Your task to perform on an android device: set the timer Image 0: 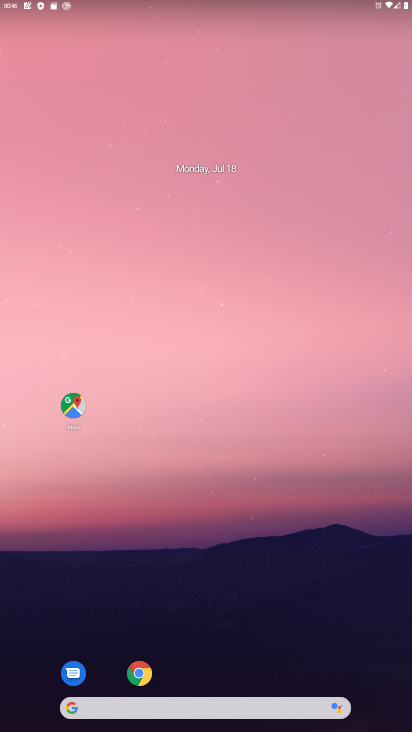
Step 0: drag from (246, 663) to (230, 51)
Your task to perform on an android device: set the timer Image 1: 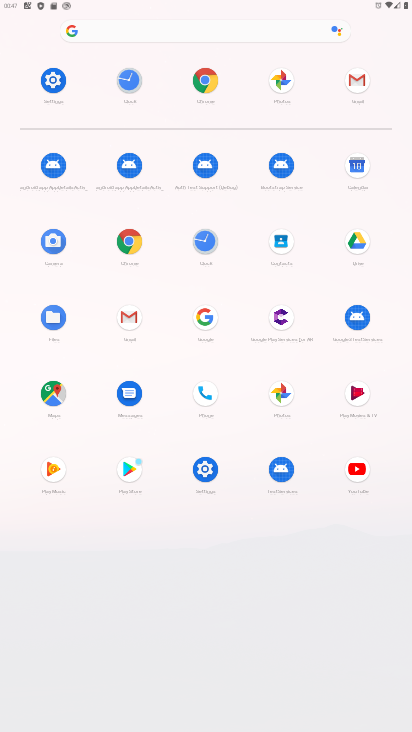
Step 1: click (44, 85)
Your task to perform on an android device: set the timer Image 2: 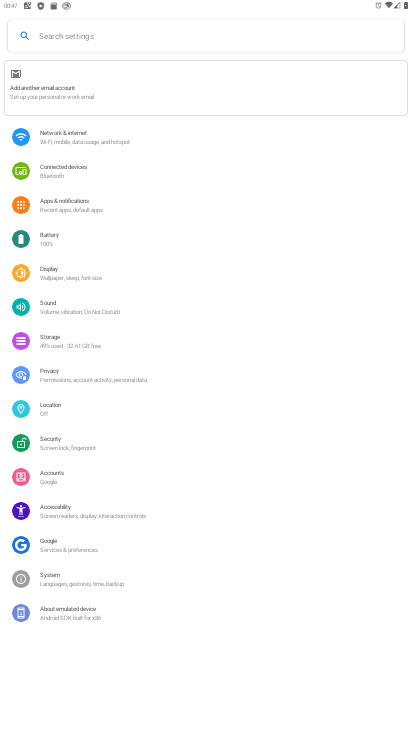
Step 2: press home button
Your task to perform on an android device: set the timer Image 3: 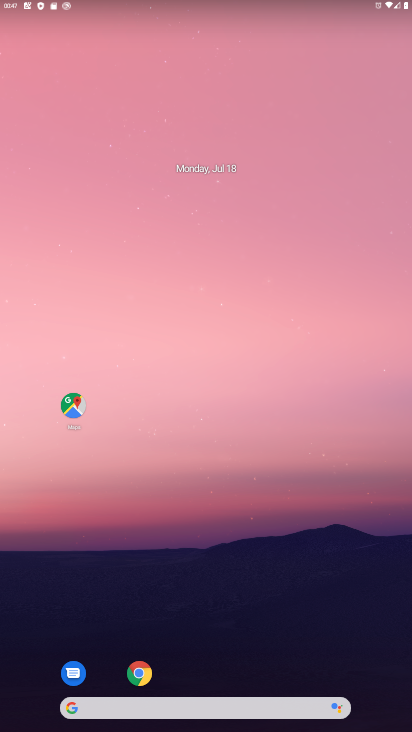
Step 3: drag from (249, 655) to (187, 110)
Your task to perform on an android device: set the timer Image 4: 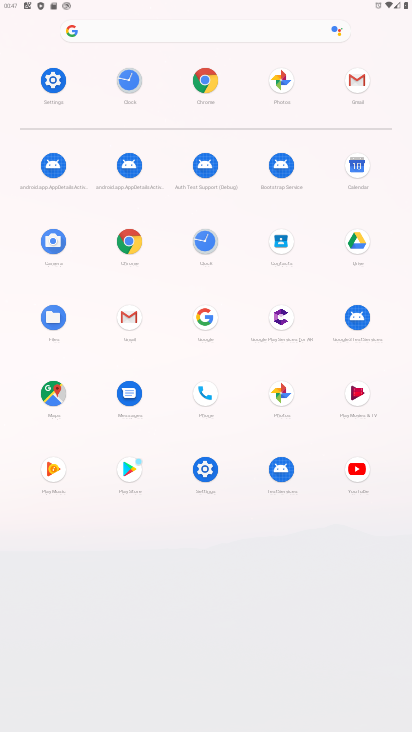
Step 4: click (194, 234)
Your task to perform on an android device: set the timer Image 5: 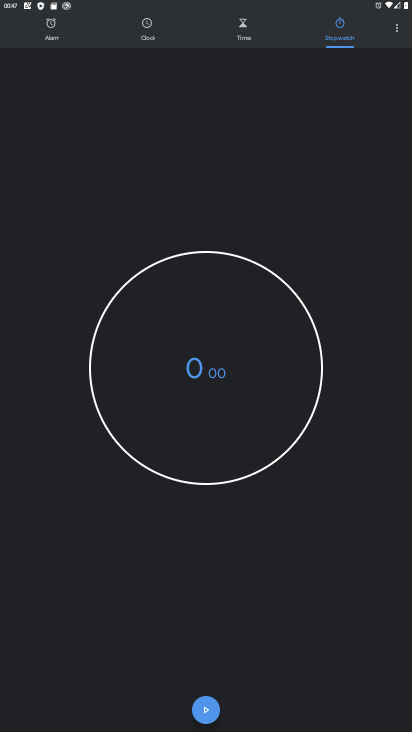
Step 5: click (395, 40)
Your task to perform on an android device: set the timer Image 6: 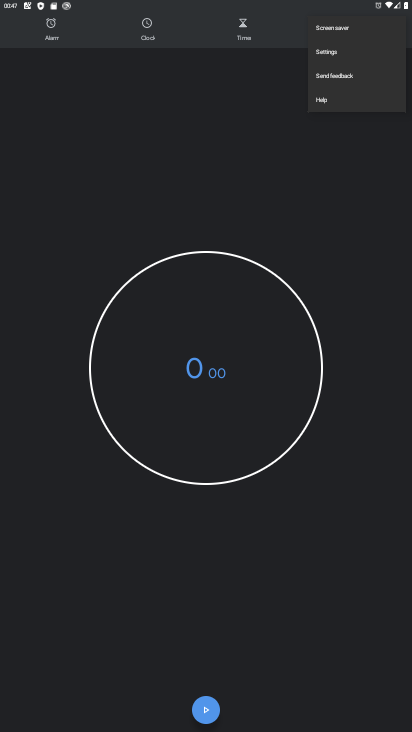
Step 6: click (199, 218)
Your task to perform on an android device: set the timer Image 7: 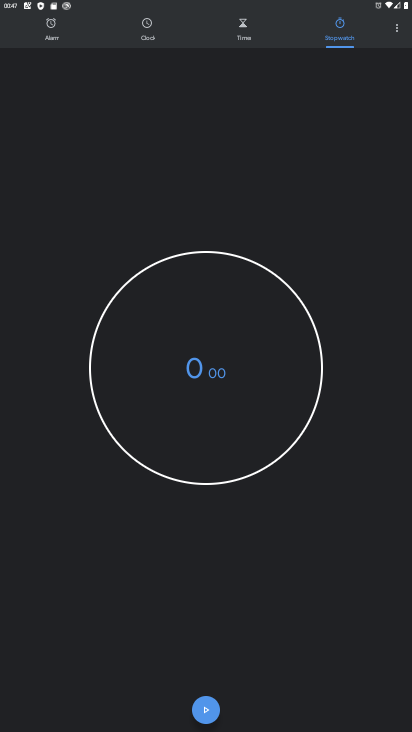
Step 7: click (266, 37)
Your task to perform on an android device: set the timer Image 8: 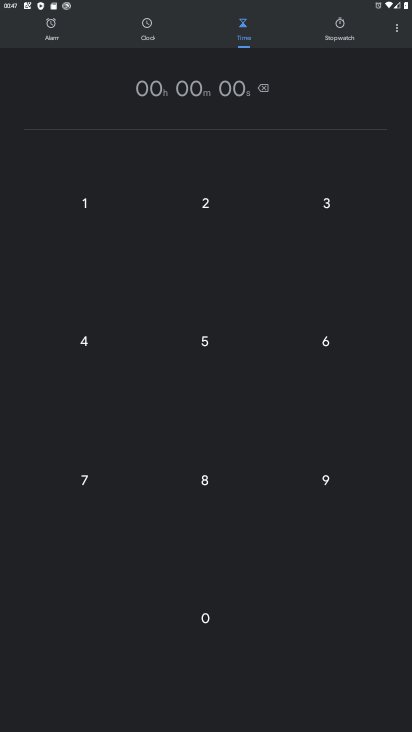
Step 8: task complete